Your task to perform on an android device: Open Google Image 0: 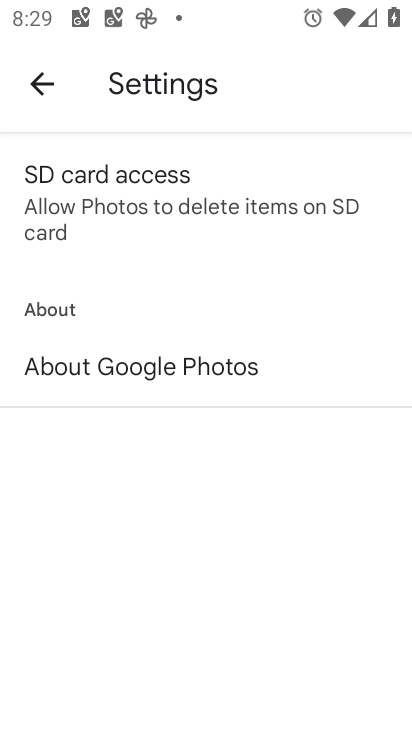
Step 0: press home button
Your task to perform on an android device: Open Google Image 1: 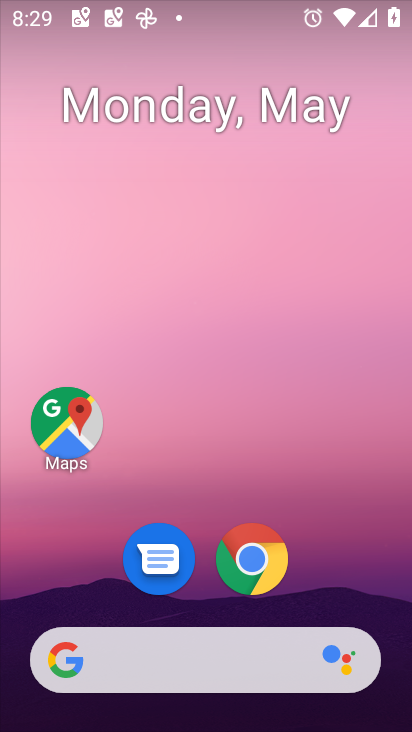
Step 1: drag from (401, 658) to (324, 85)
Your task to perform on an android device: Open Google Image 2: 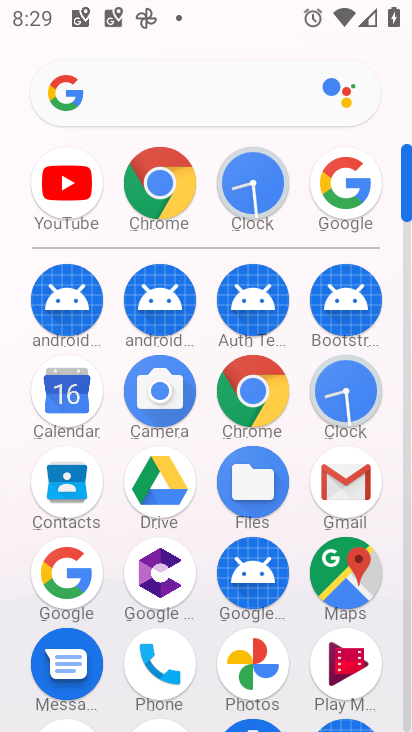
Step 2: click (63, 552)
Your task to perform on an android device: Open Google Image 3: 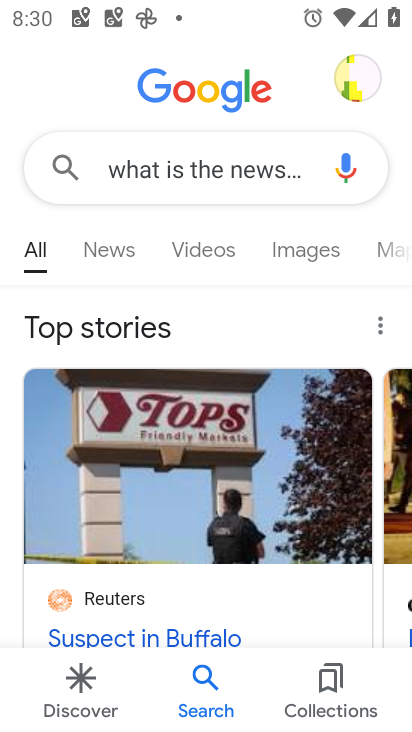
Step 3: task complete